Your task to perform on an android device: turn pop-ups on in chrome Image 0: 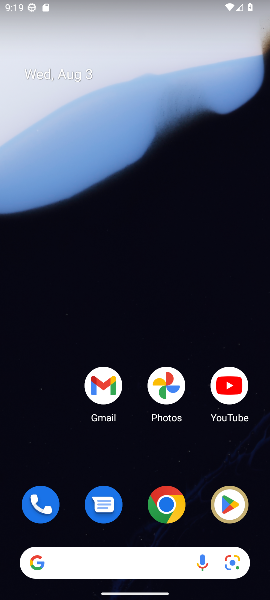
Step 0: click (165, 497)
Your task to perform on an android device: turn pop-ups on in chrome Image 1: 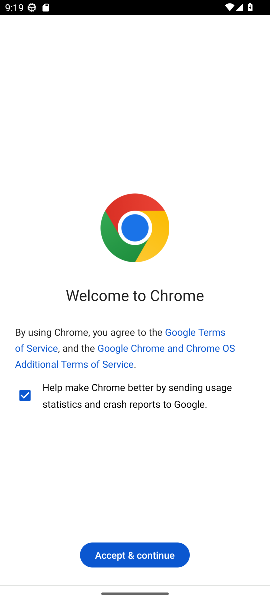
Step 1: click (129, 544)
Your task to perform on an android device: turn pop-ups on in chrome Image 2: 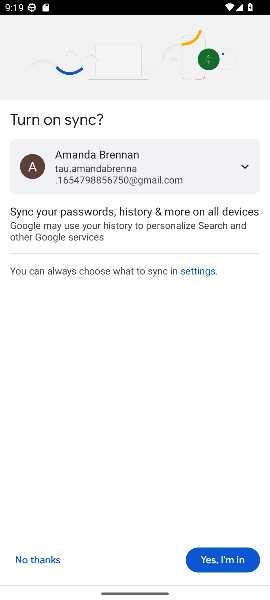
Step 2: click (223, 558)
Your task to perform on an android device: turn pop-ups on in chrome Image 3: 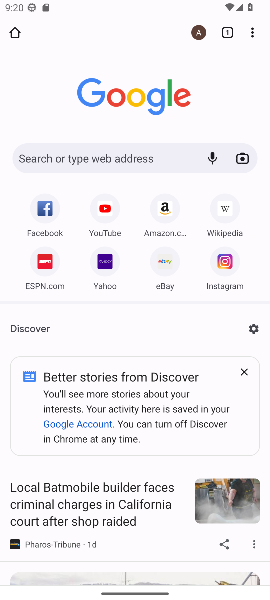
Step 3: click (251, 30)
Your task to perform on an android device: turn pop-ups on in chrome Image 4: 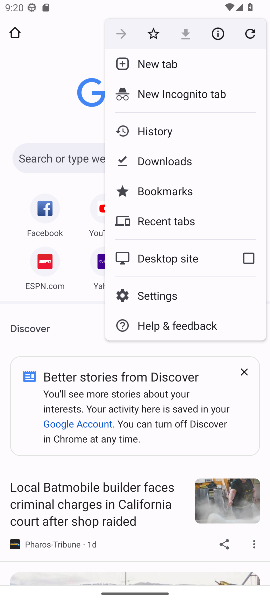
Step 4: click (172, 292)
Your task to perform on an android device: turn pop-ups on in chrome Image 5: 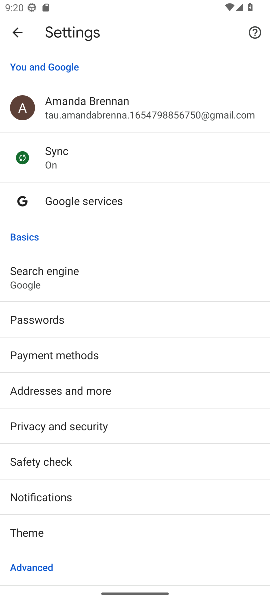
Step 5: drag from (78, 568) to (109, 103)
Your task to perform on an android device: turn pop-ups on in chrome Image 6: 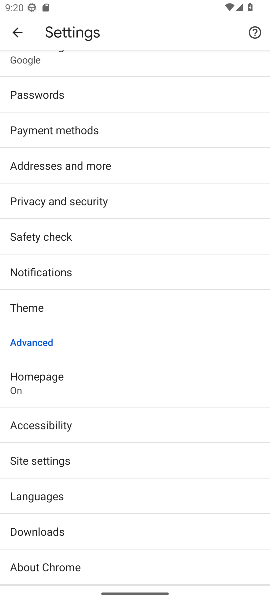
Step 6: click (78, 461)
Your task to perform on an android device: turn pop-ups on in chrome Image 7: 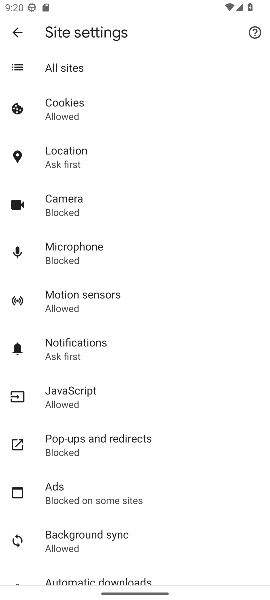
Step 7: click (98, 447)
Your task to perform on an android device: turn pop-ups on in chrome Image 8: 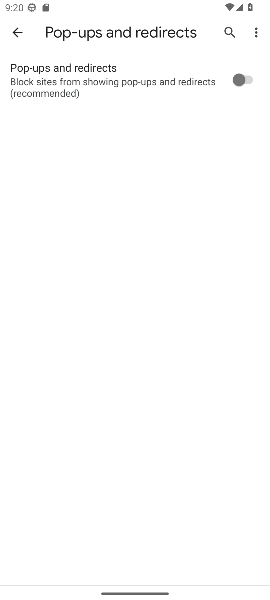
Step 8: click (244, 80)
Your task to perform on an android device: turn pop-ups on in chrome Image 9: 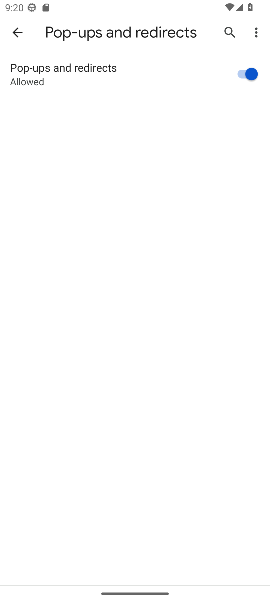
Step 9: task complete